Your task to perform on an android device: uninstall "Google Duo" Image 0: 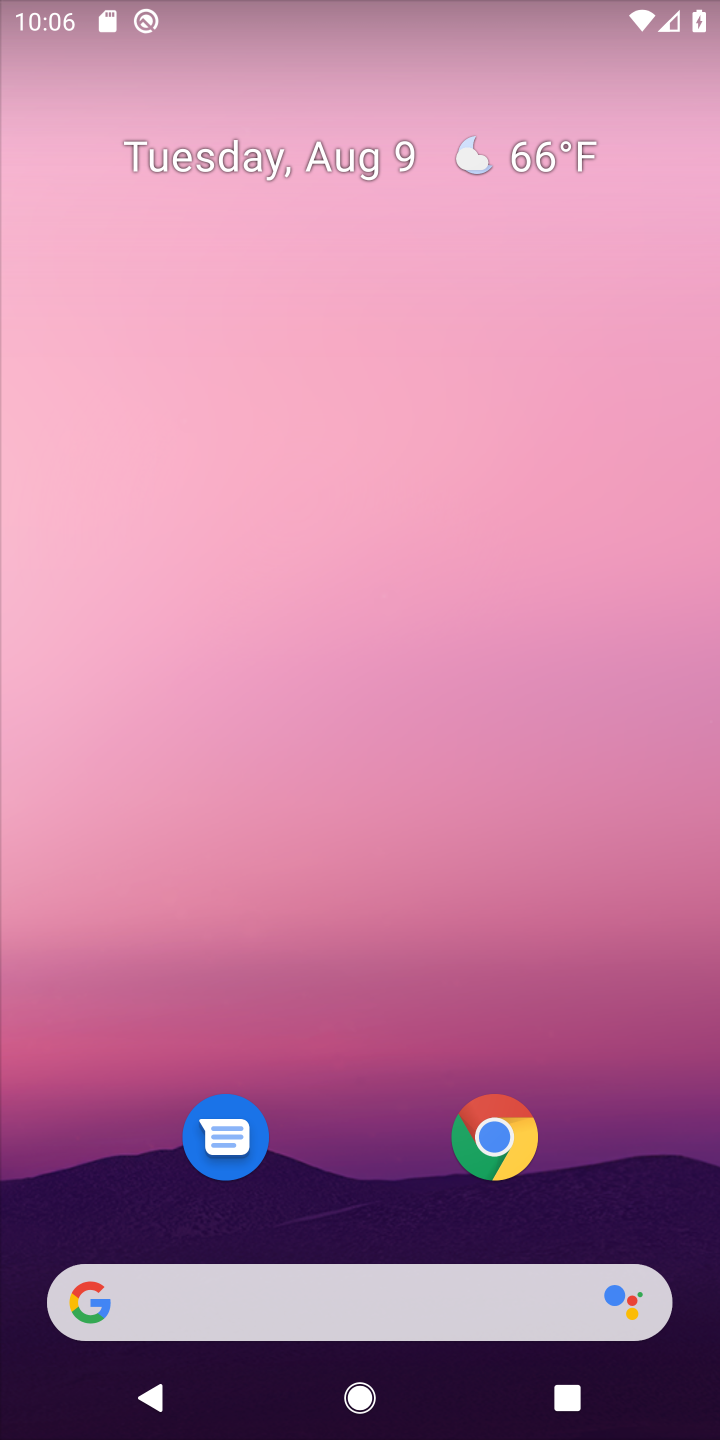
Step 0: drag from (385, 945) to (385, 339)
Your task to perform on an android device: uninstall "Google Duo" Image 1: 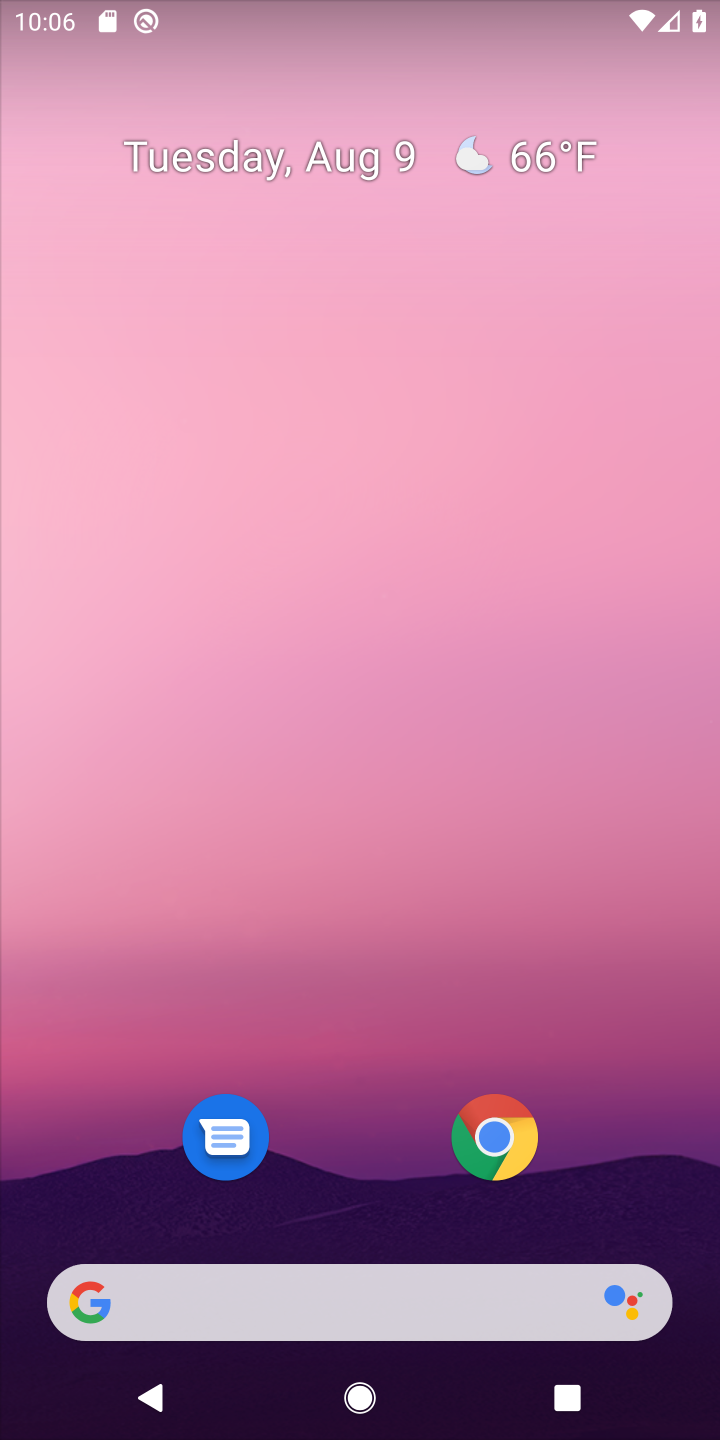
Step 1: drag from (330, 1138) to (352, 332)
Your task to perform on an android device: uninstall "Google Duo" Image 2: 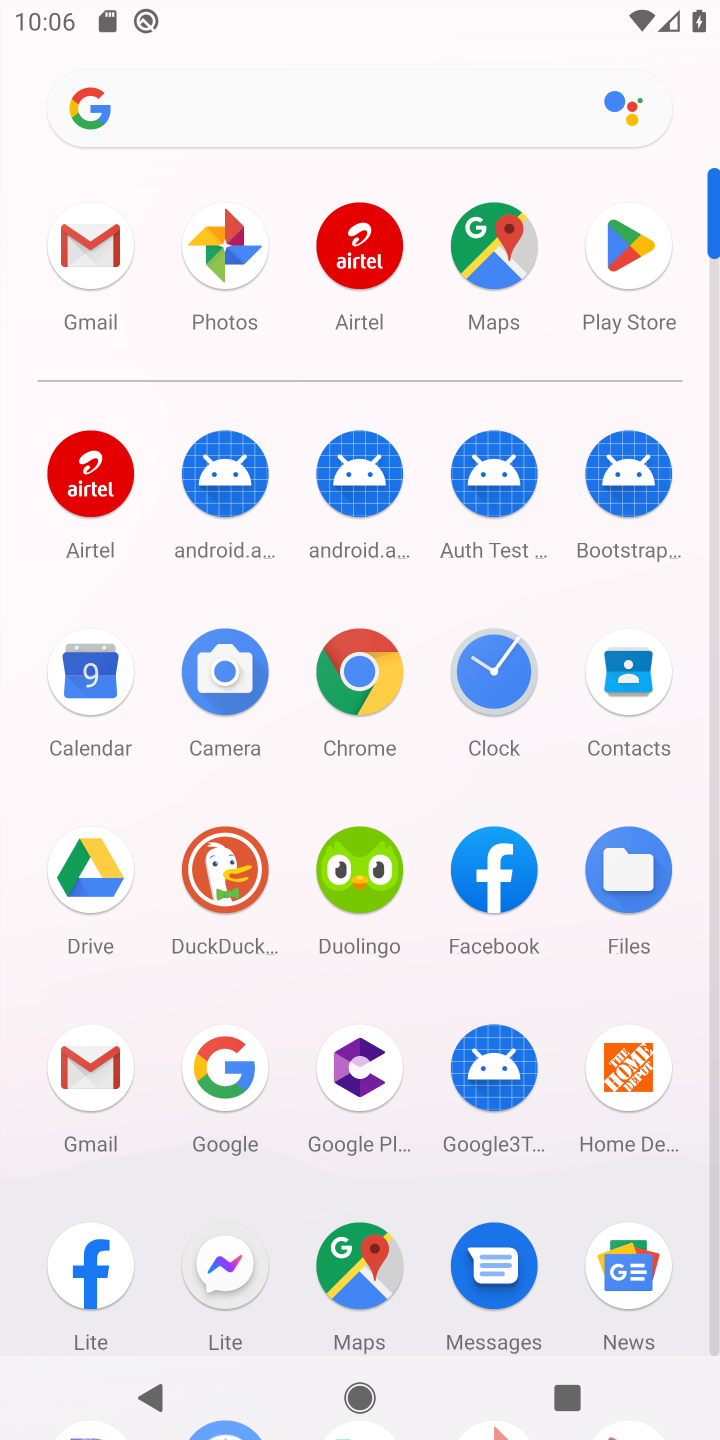
Step 2: click (665, 267)
Your task to perform on an android device: uninstall "Google Duo" Image 3: 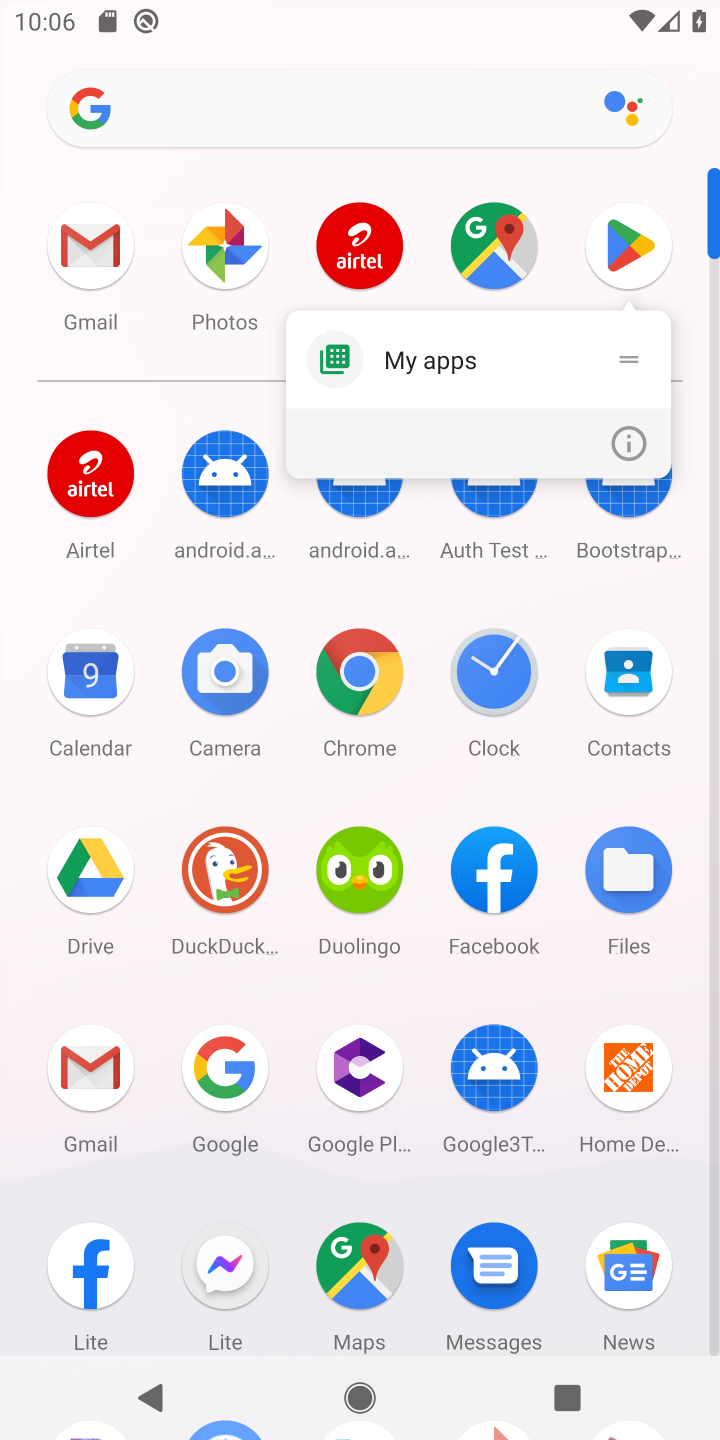
Step 3: click (641, 240)
Your task to perform on an android device: uninstall "Google Duo" Image 4: 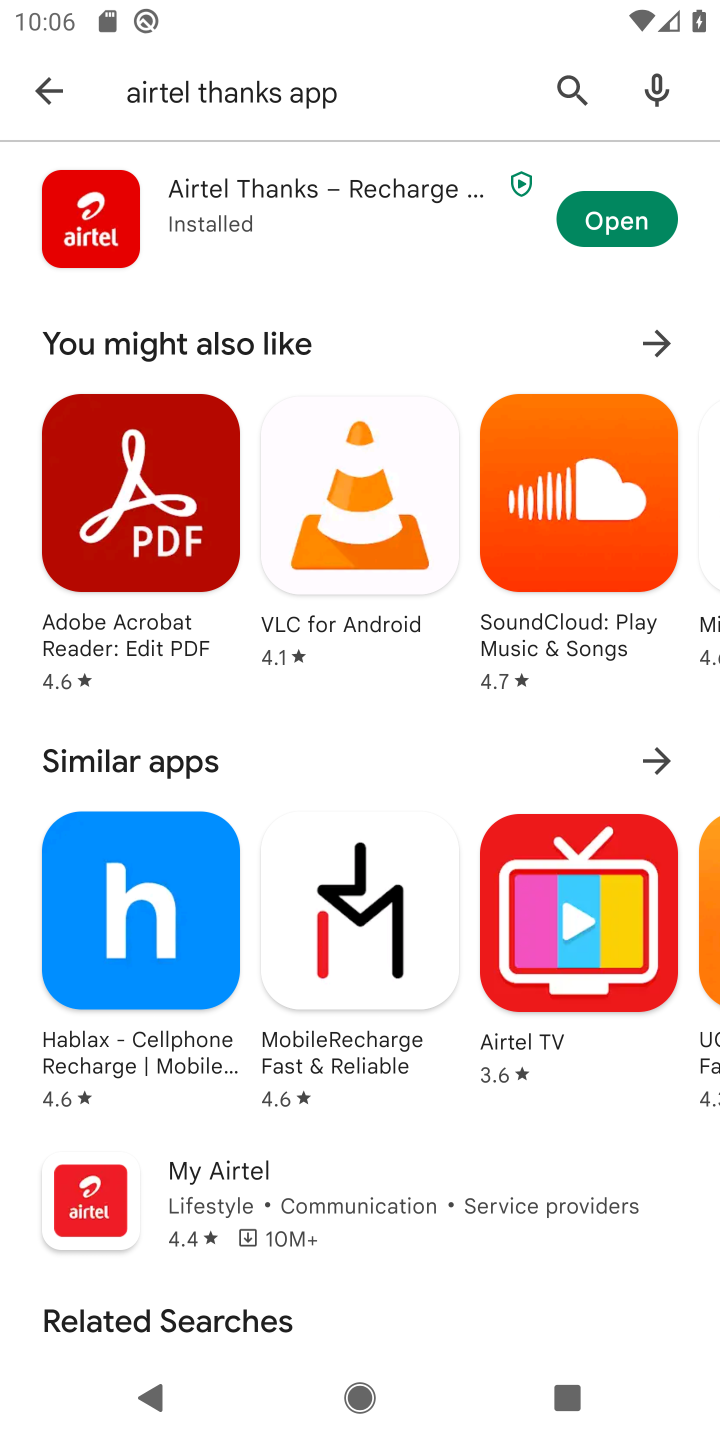
Step 4: click (578, 77)
Your task to perform on an android device: uninstall "Google Duo" Image 5: 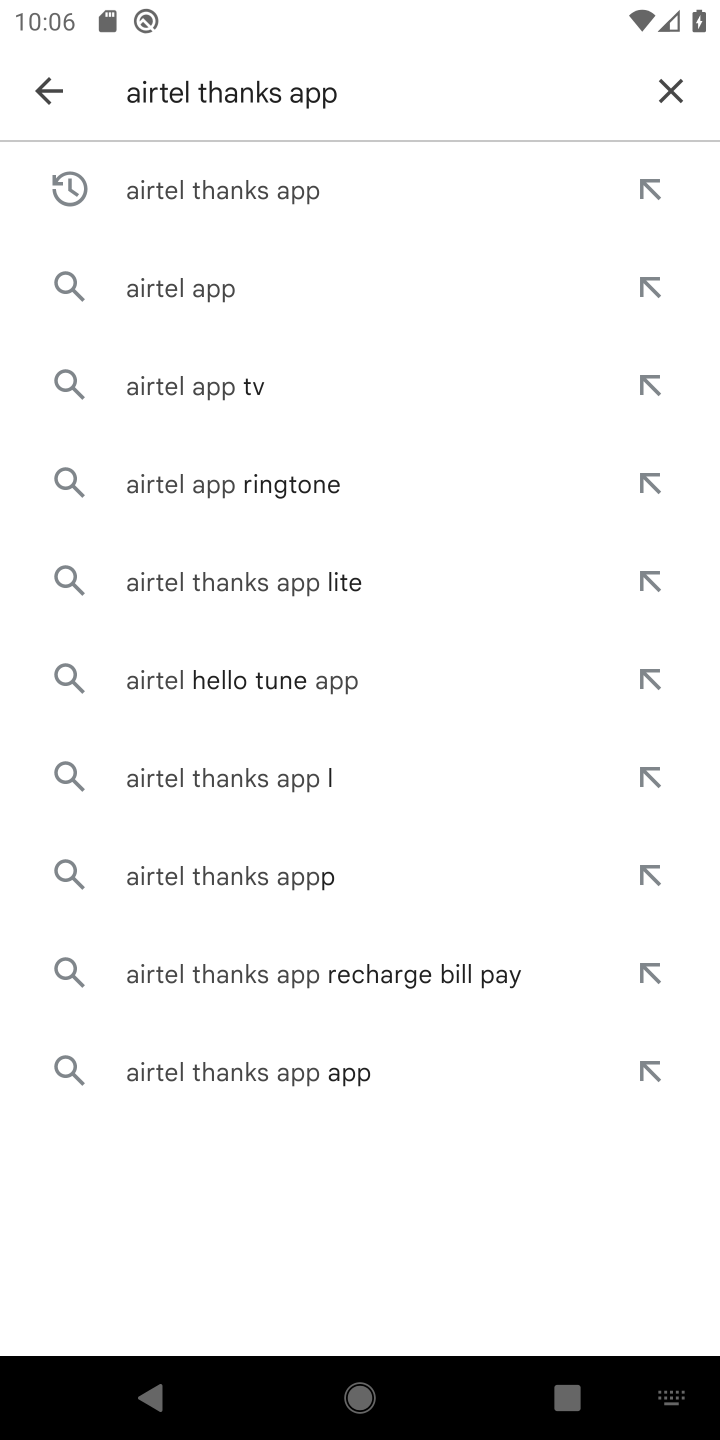
Step 5: click (667, 90)
Your task to perform on an android device: uninstall "Google Duo" Image 6: 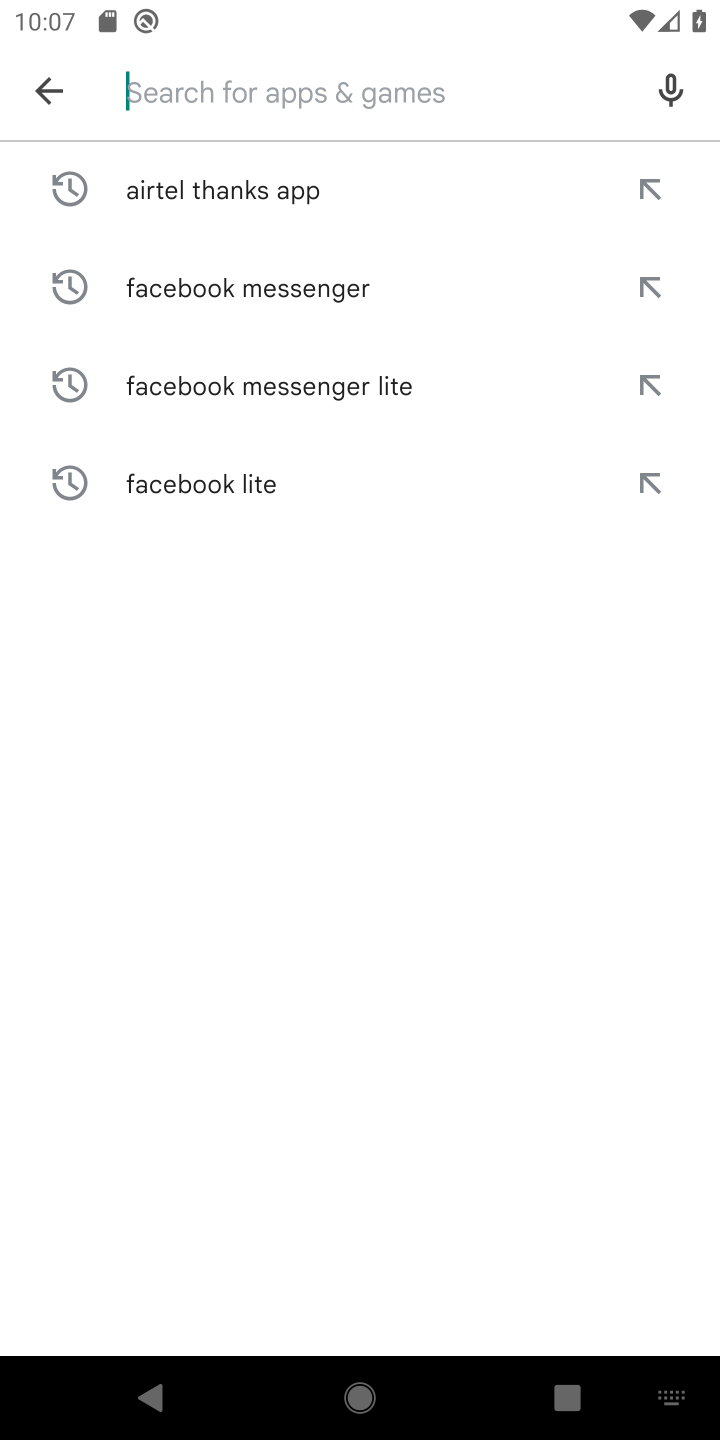
Step 6: type "Google Duo"
Your task to perform on an android device: uninstall "Google Duo" Image 7: 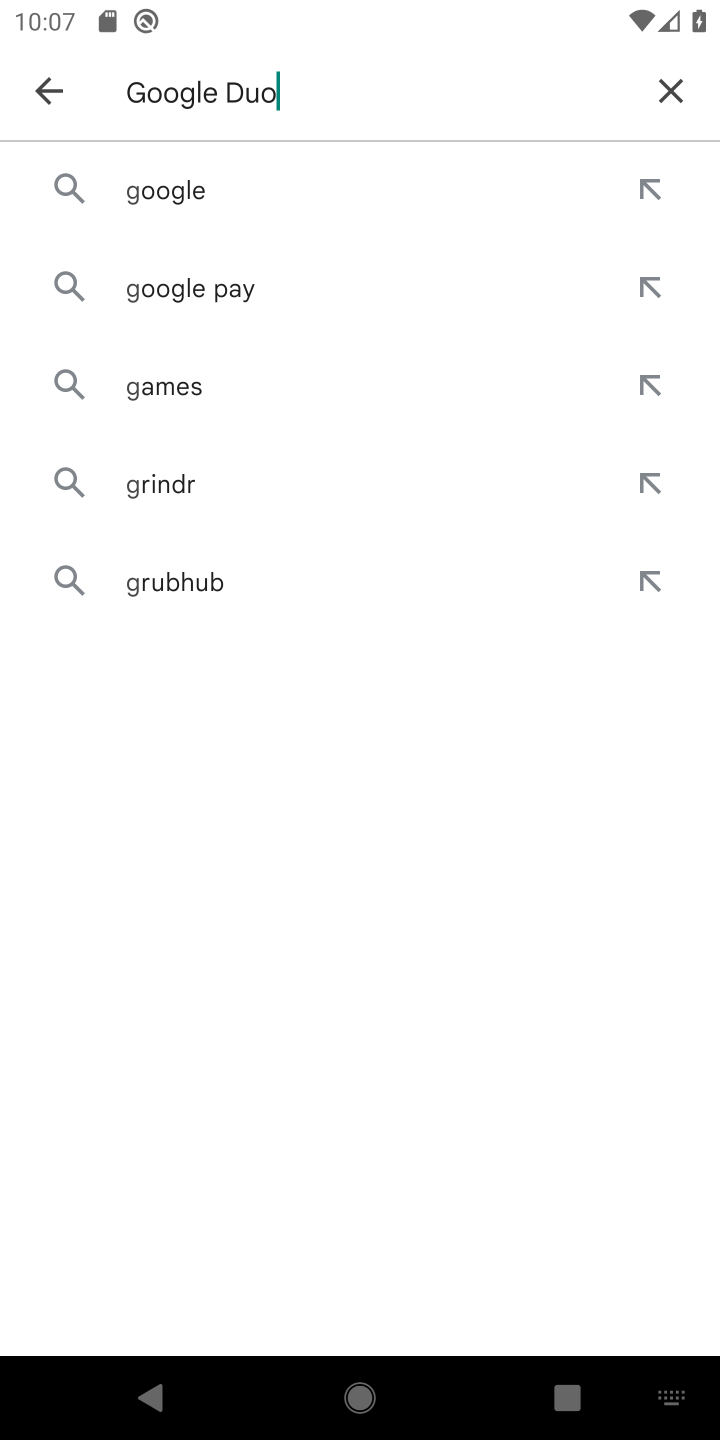
Step 7: type ""
Your task to perform on an android device: uninstall "Google Duo" Image 8: 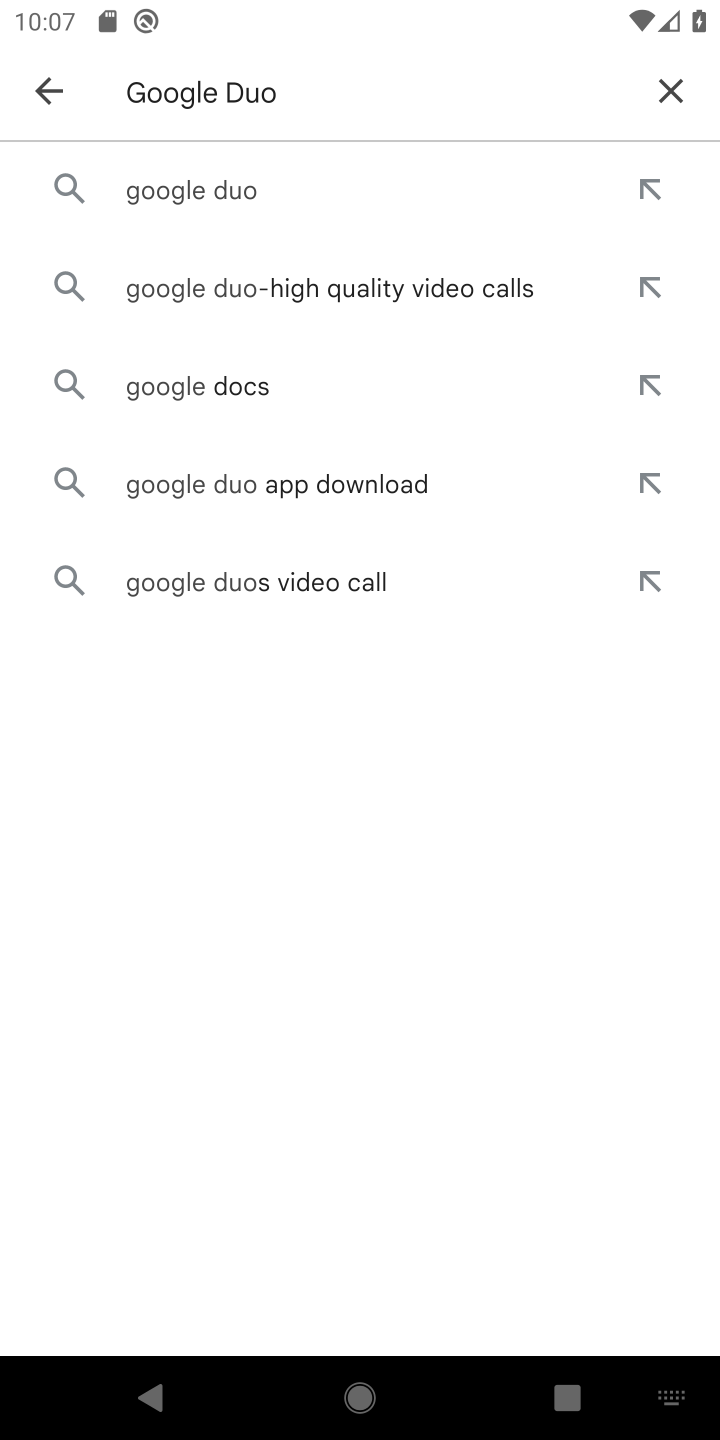
Step 8: click (357, 179)
Your task to perform on an android device: uninstall "Google Duo" Image 9: 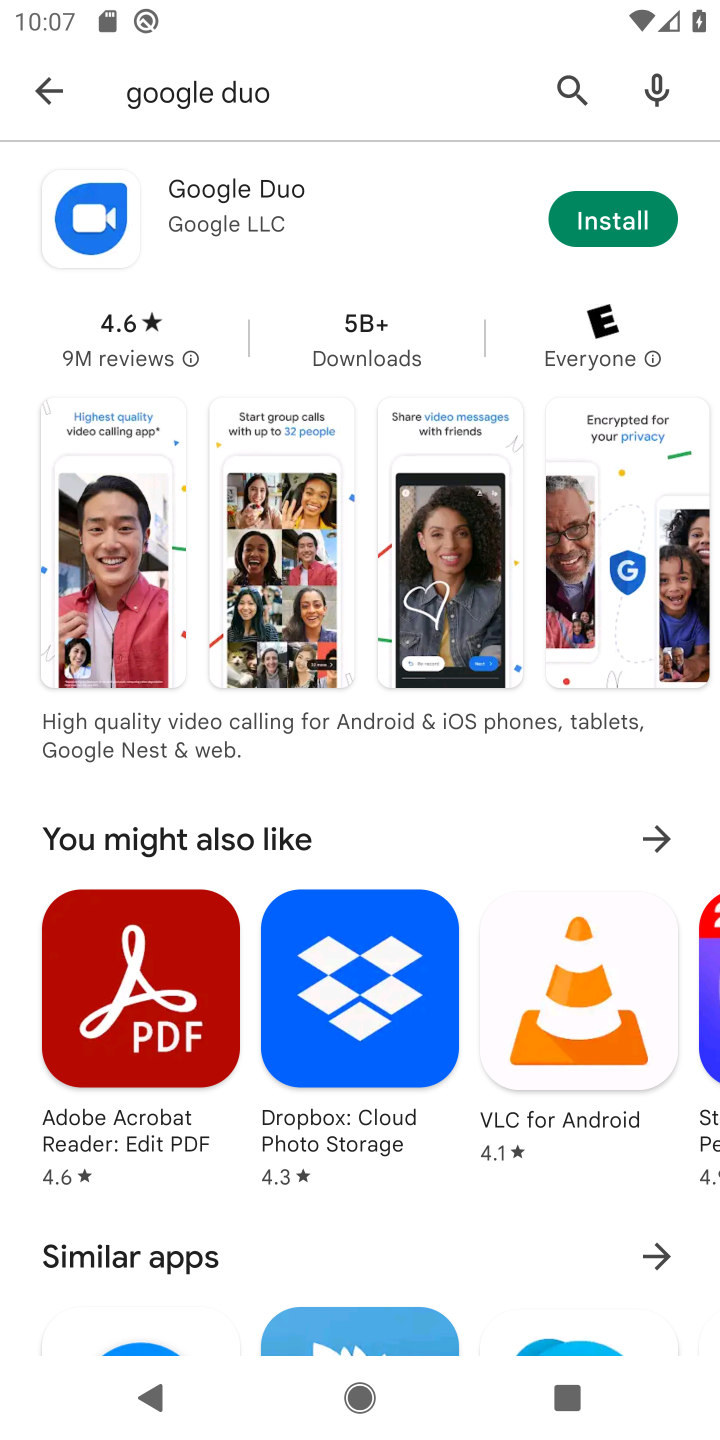
Step 9: task complete